Your task to perform on an android device: change keyboard looks Image 0: 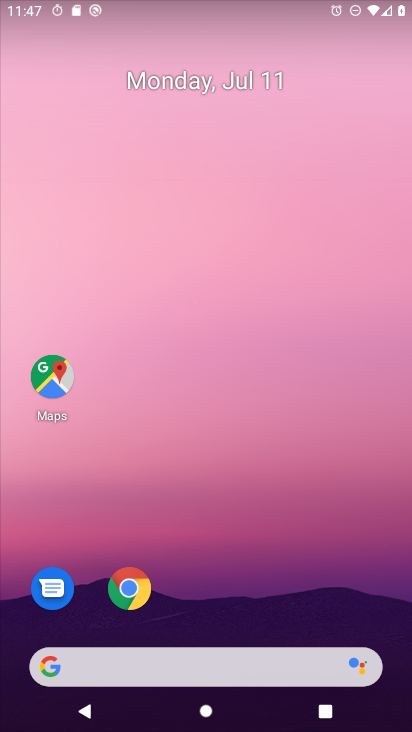
Step 0: drag from (221, 563) to (299, 31)
Your task to perform on an android device: change keyboard looks Image 1: 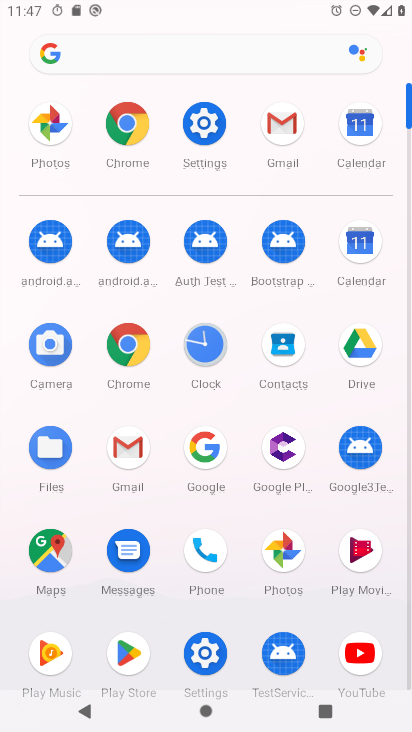
Step 1: click (202, 120)
Your task to perform on an android device: change keyboard looks Image 2: 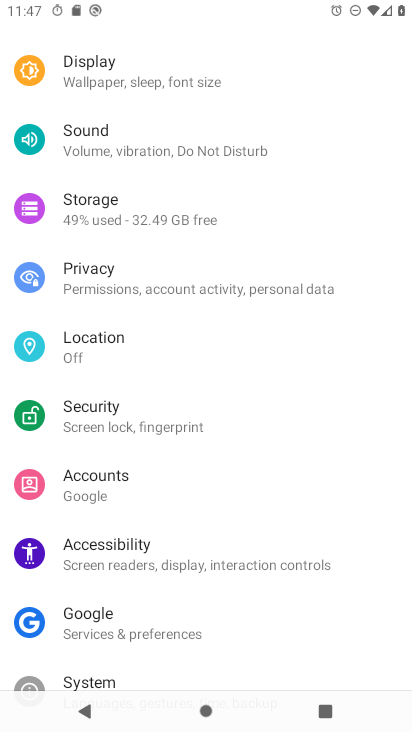
Step 2: drag from (243, 147) to (232, 713)
Your task to perform on an android device: change keyboard looks Image 3: 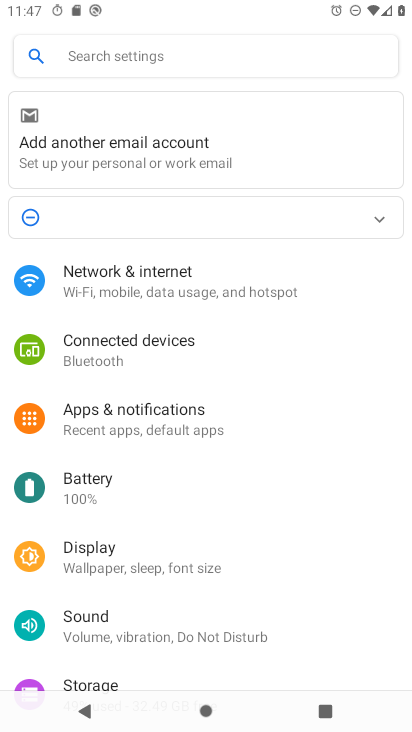
Step 3: drag from (223, 562) to (302, 39)
Your task to perform on an android device: change keyboard looks Image 4: 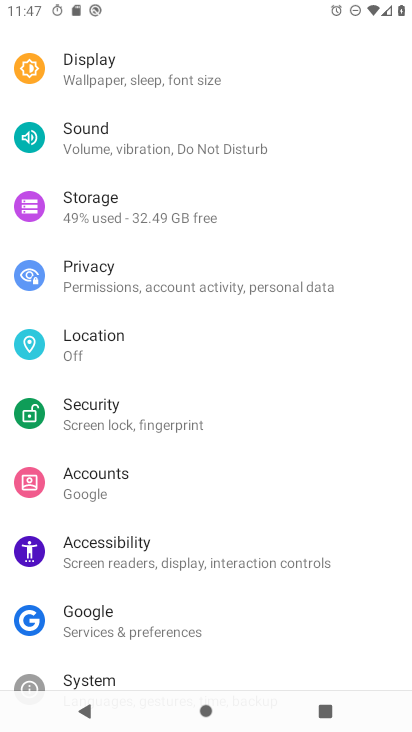
Step 4: drag from (168, 551) to (232, 22)
Your task to perform on an android device: change keyboard looks Image 5: 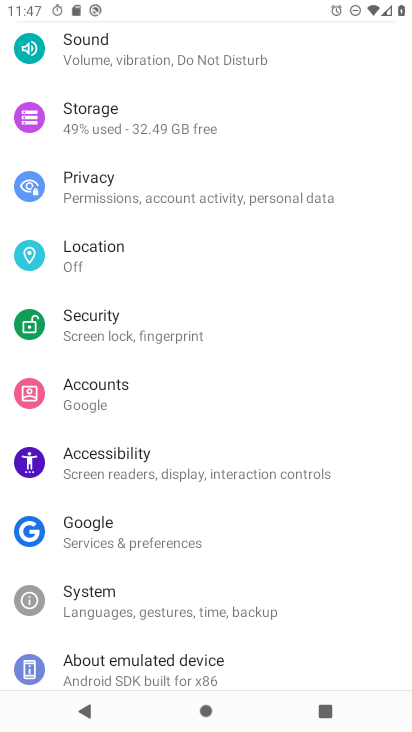
Step 5: click (103, 597)
Your task to perform on an android device: change keyboard looks Image 6: 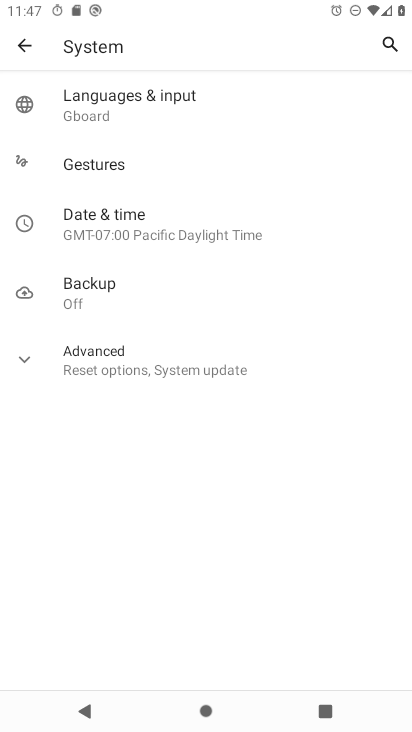
Step 6: click (101, 96)
Your task to perform on an android device: change keyboard looks Image 7: 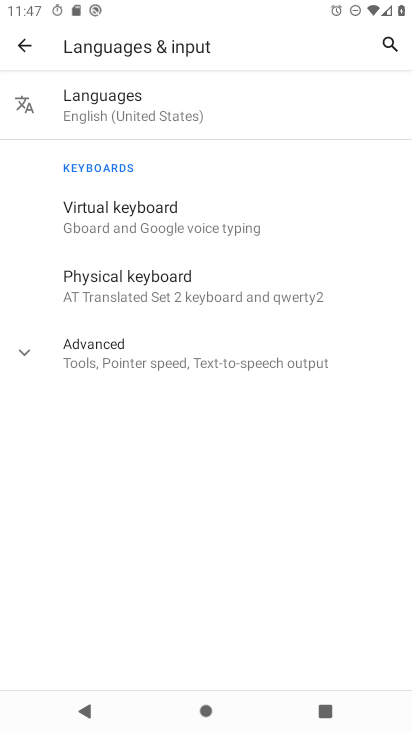
Step 7: click (150, 204)
Your task to perform on an android device: change keyboard looks Image 8: 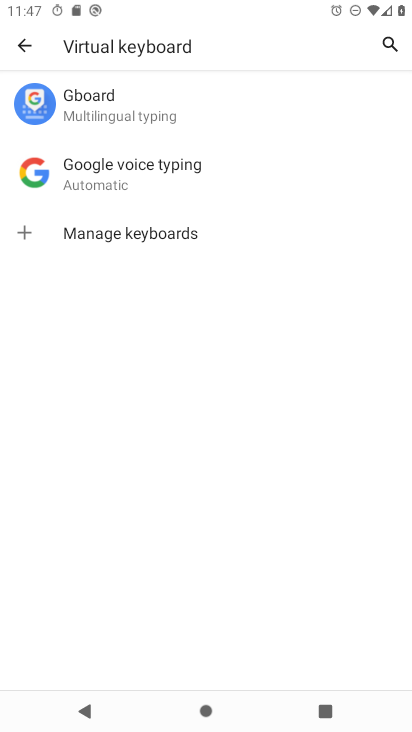
Step 8: click (102, 104)
Your task to perform on an android device: change keyboard looks Image 9: 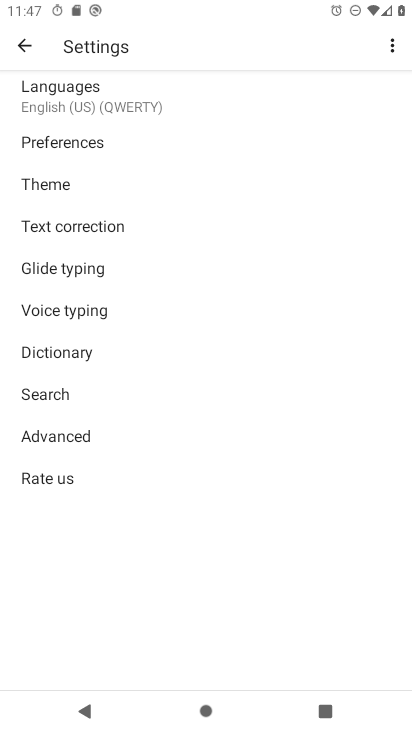
Step 9: click (55, 184)
Your task to perform on an android device: change keyboard looks Image 10: 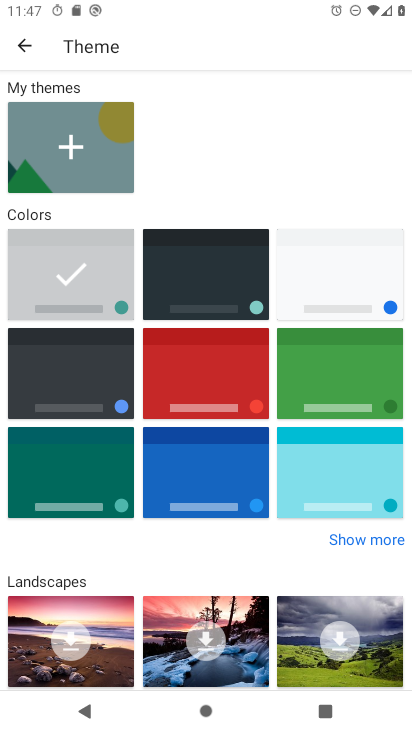
Step 10: click (204, 372)
Your task to perform on an android device: change keyboard looks Image 11: 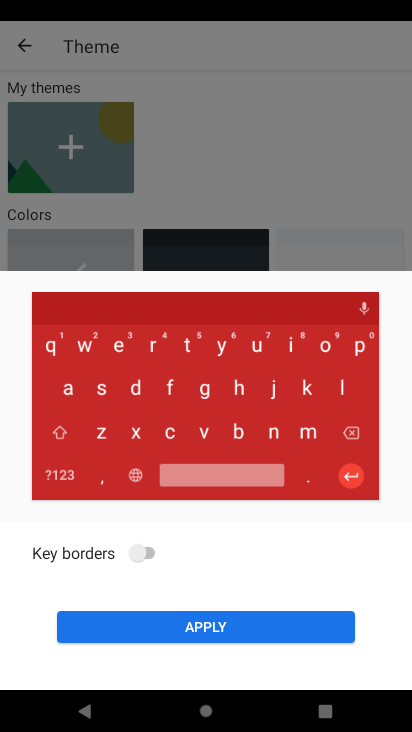
Step 11: click (229, 632)
Your task to perform on an android device: change keyboard looks Image 12: 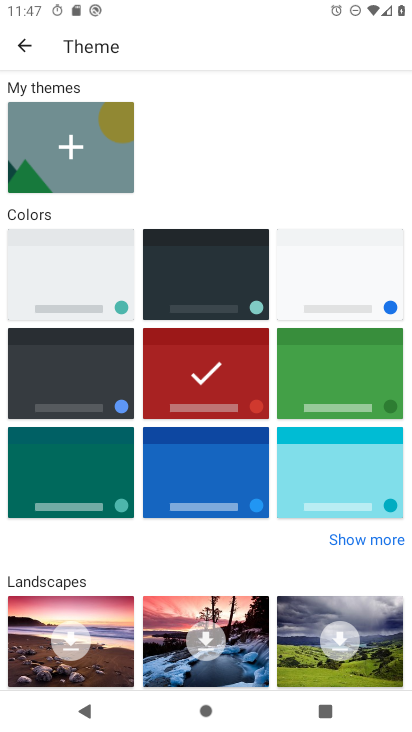
Step 12: task complete